Your task to perform on an android device: open app "Calculator" Image 0: 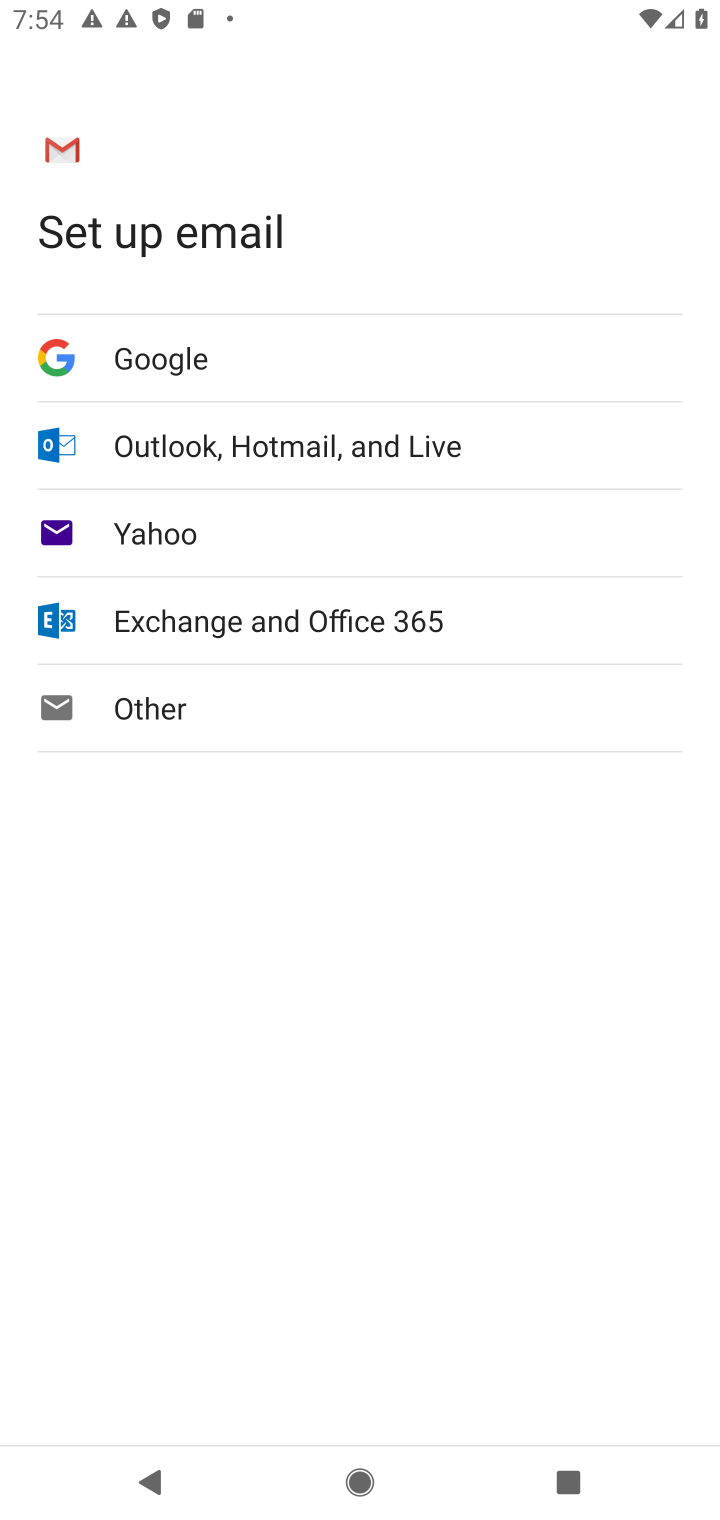
Step 0: press home button
Your task to perform on an android device: open app "Calculator" Image 1: 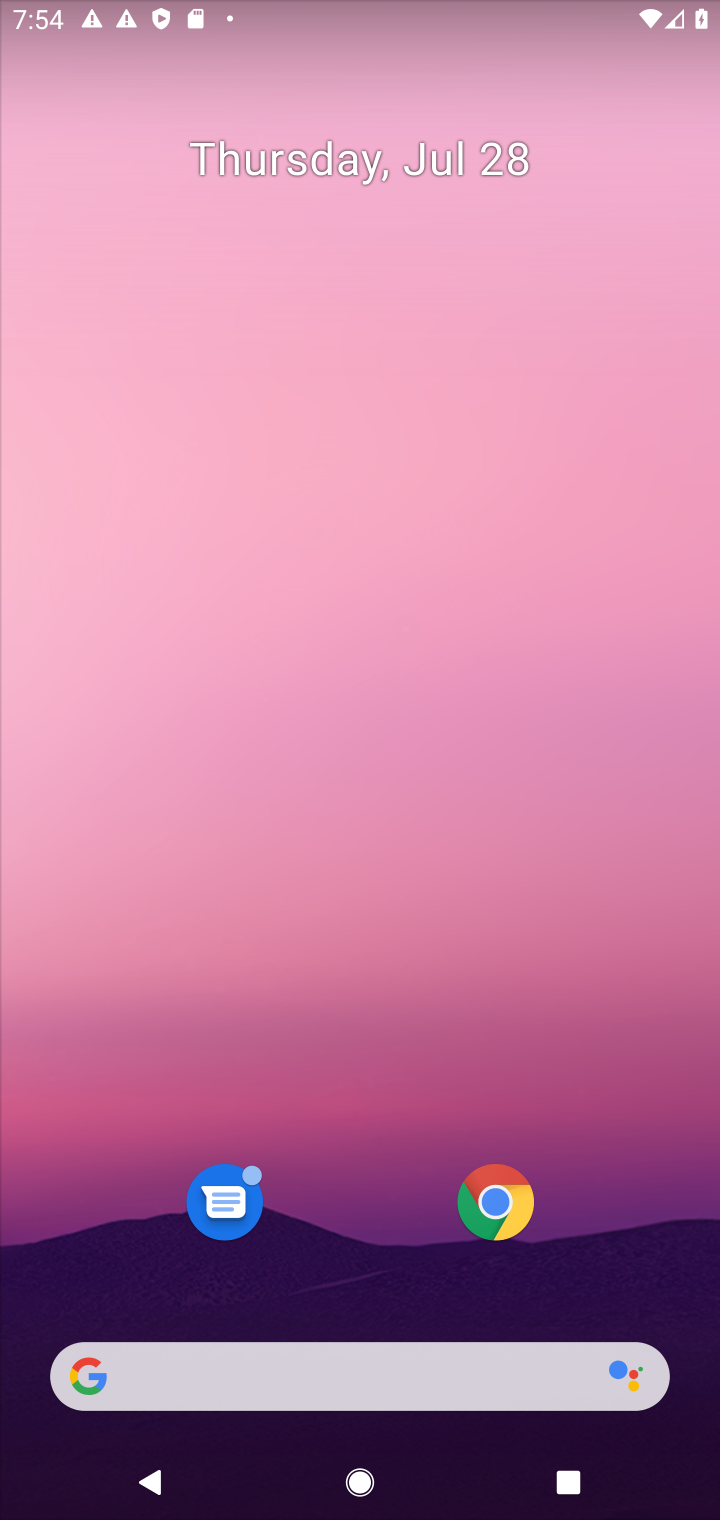
Step 1: drag from (346, 1271) to (390, 147)
Your task to perform on an android device: open app "Calculator" Image 2: 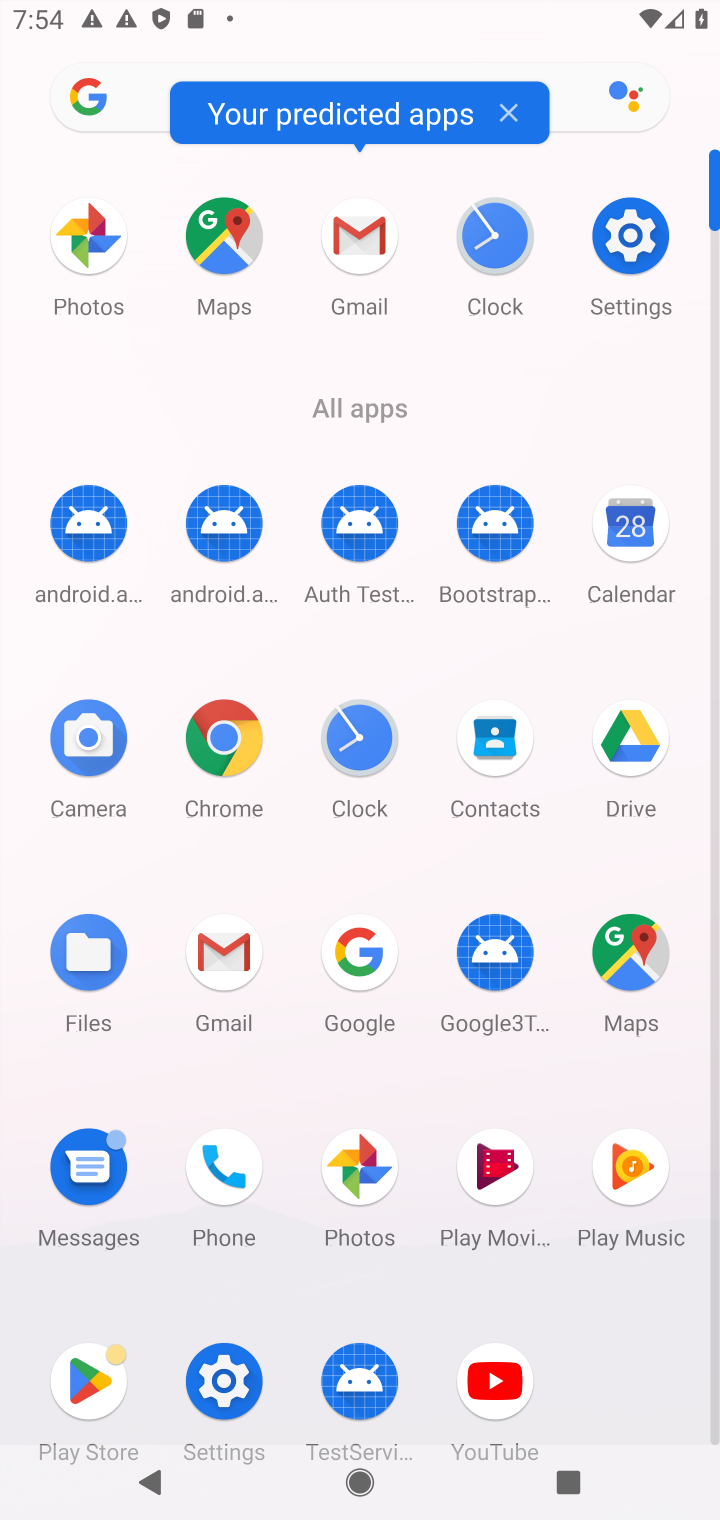
Step 2: click (92, 1376)
Your task to perform on an android device: open app "Calculator" Image 3: 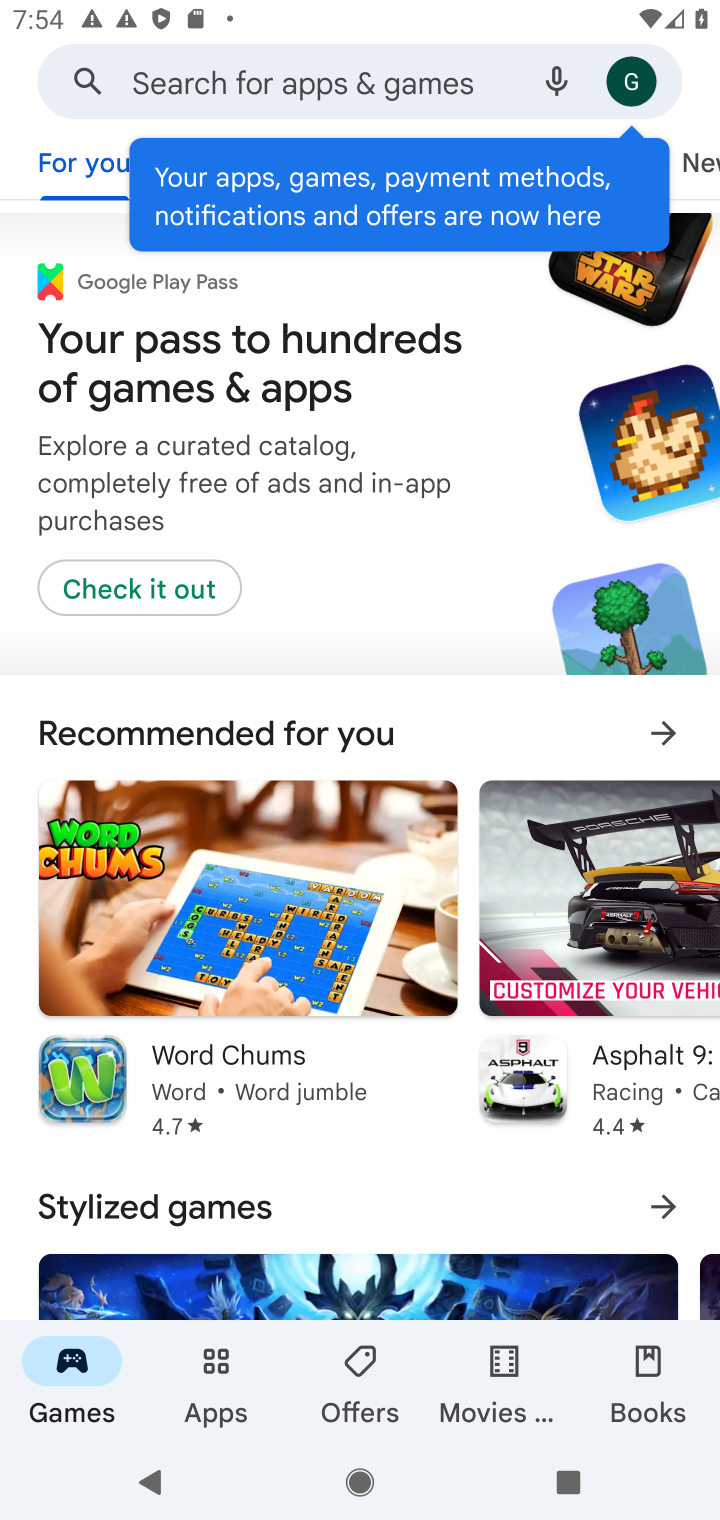
Step 3: click (239, 69)
Your task to perform on an android device: open app "Calculator" Image 4: 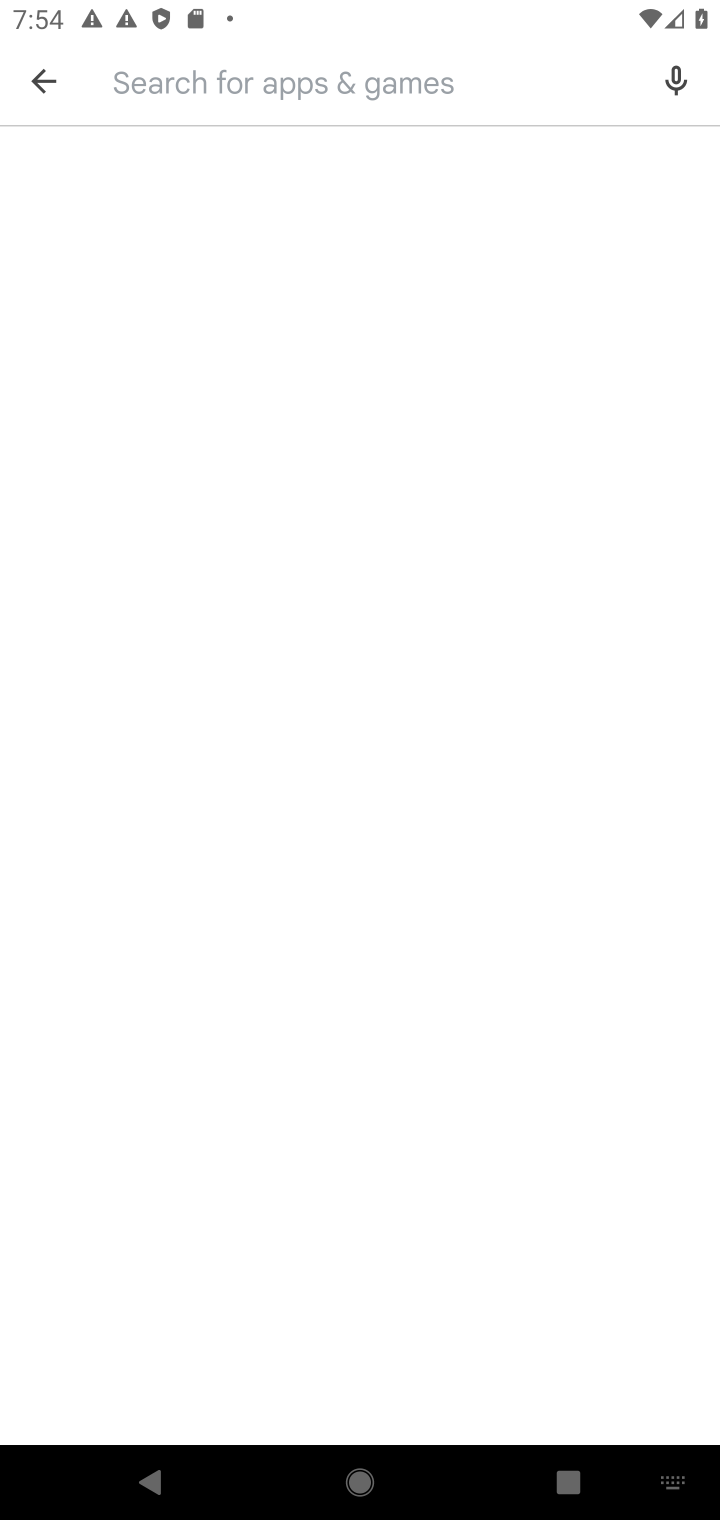
Step 4: type "calculator"
Your task to perform on an android device: open app "Calculator" Image 5: 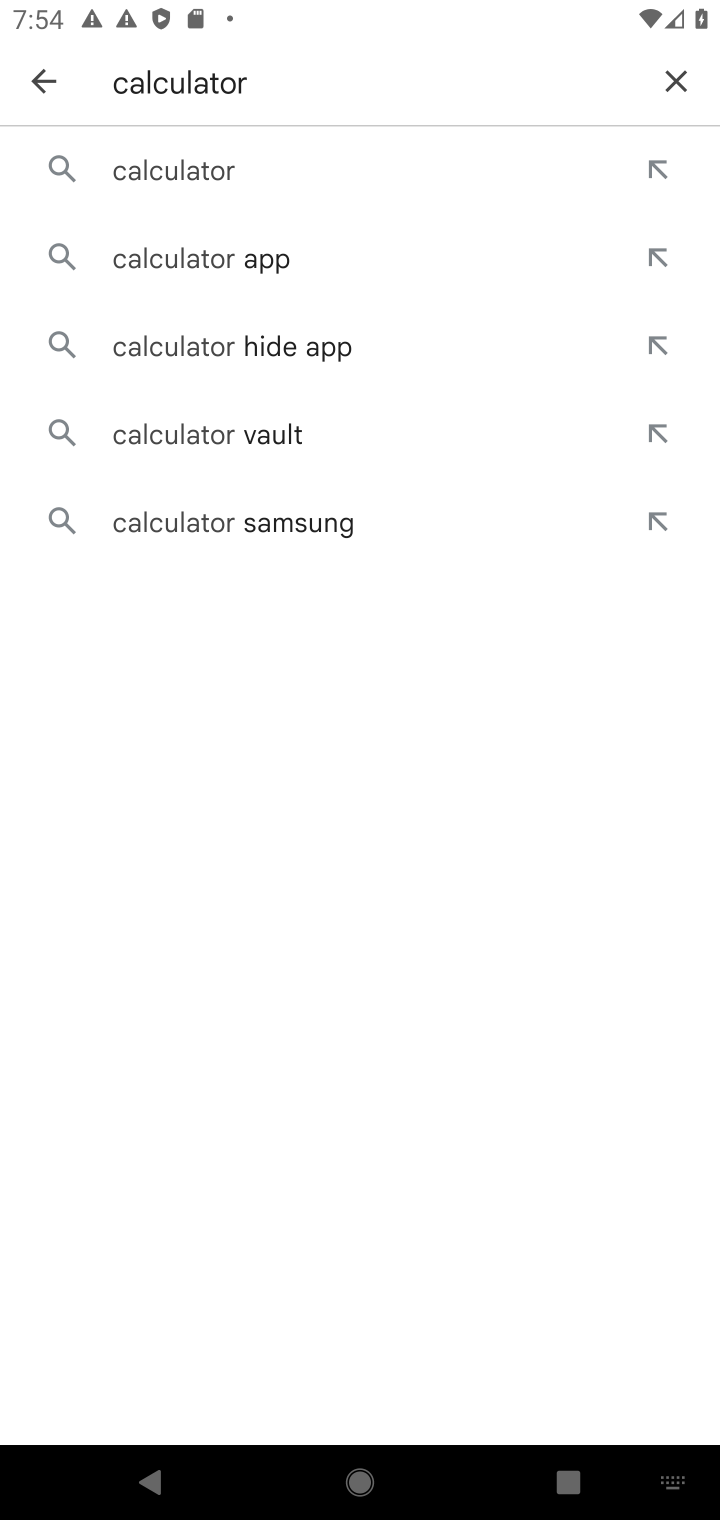
Step 5: click (286, 173)
Your task to perform on an android device: open app "Calculator" Image 6: 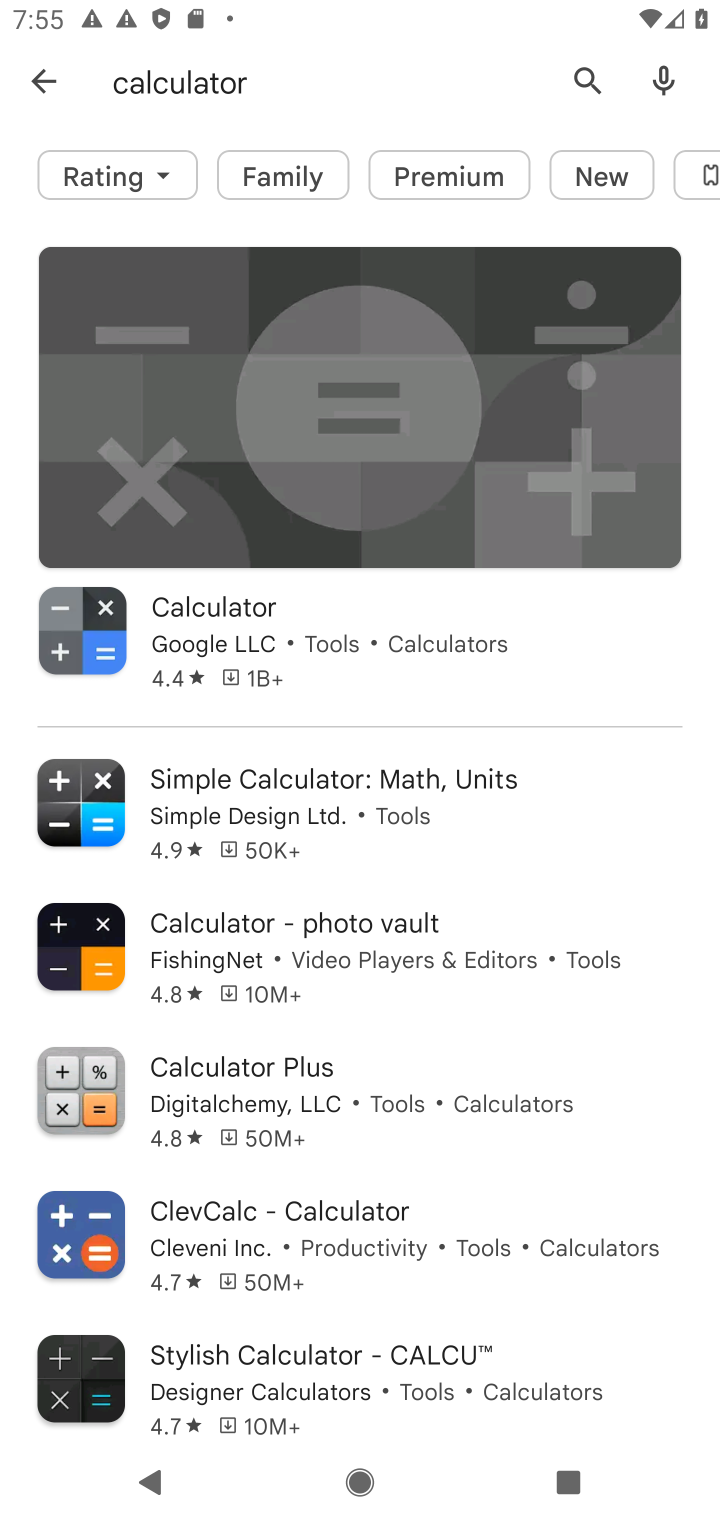
Step 6: click (326, 639)
Your task to perform on an android device: open app "Calculator" Image 7: 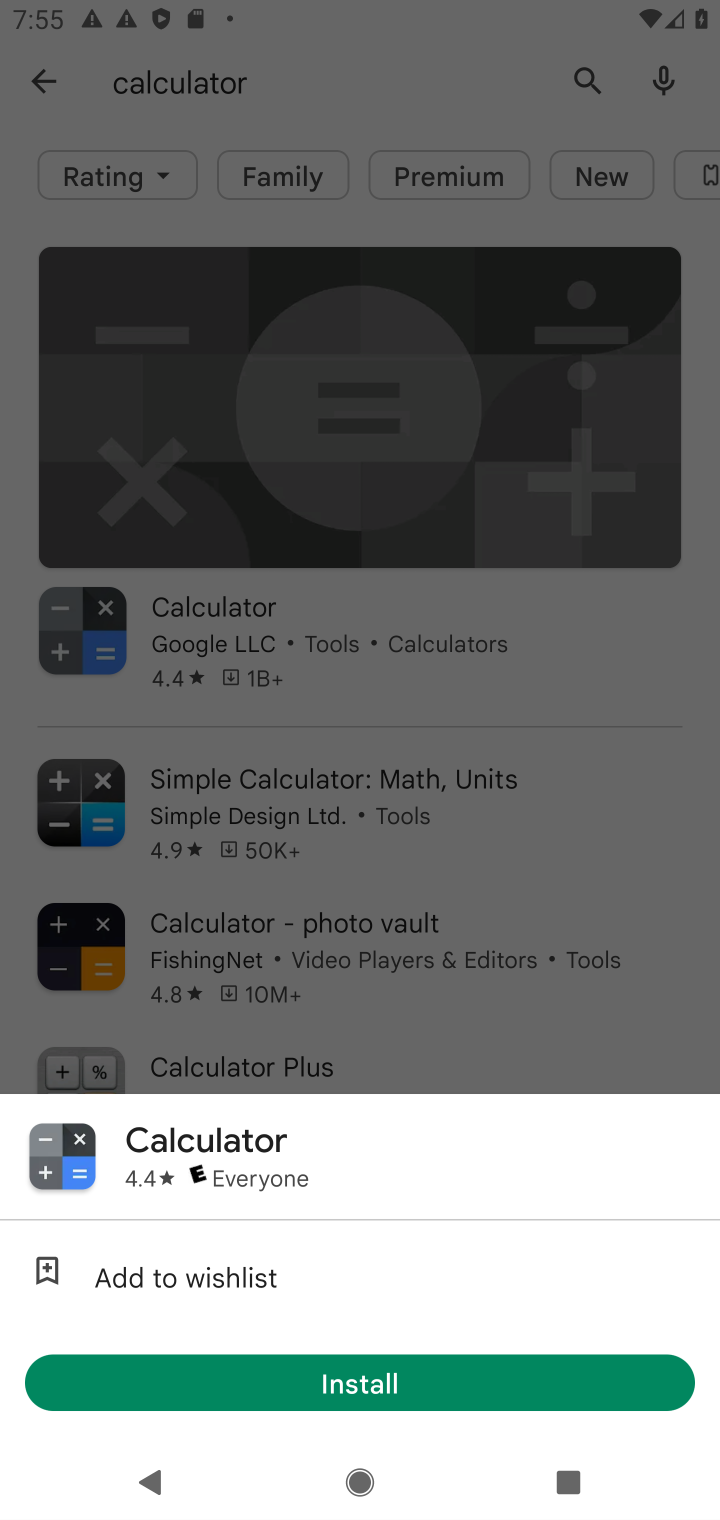
Step 7: task complete